Your task to perform on an android device: find which apps use the phone's location Image 0: 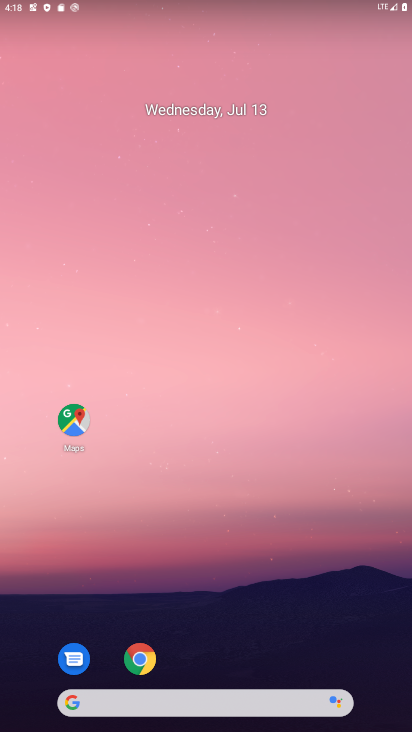
Step 0: drag from (213, 652) to (254, 85)
Your task to perform on an android device: find which apps use the phone's location Image 1: 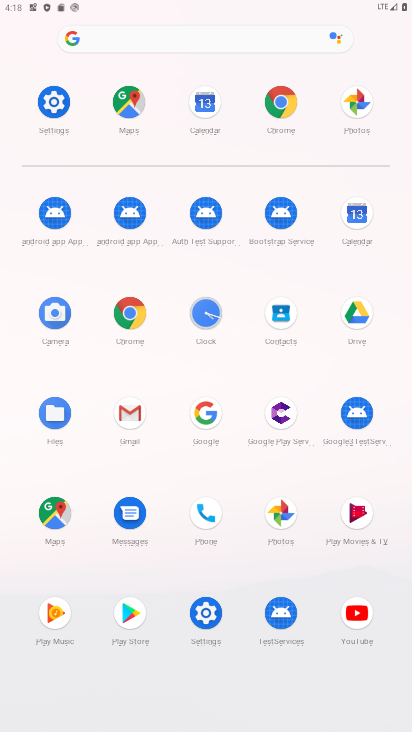
Step 1: click (51, 95)
Your task to perform on an android device: find which apps use the phone's location Image 2: 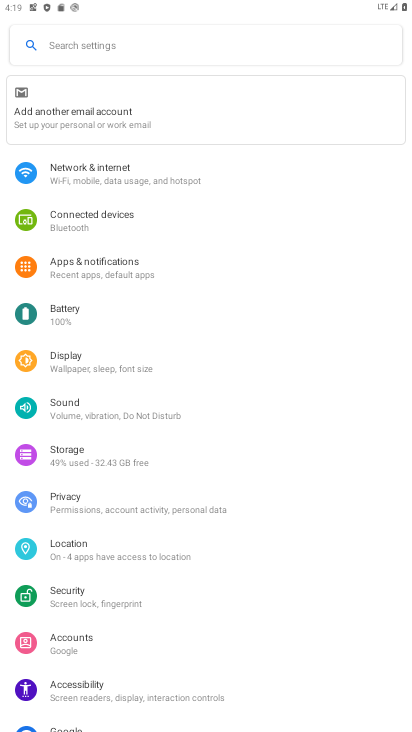
Step 2: click (94, 548)
Your task to perform on an android device: find which apps use the phone's location Image 3: 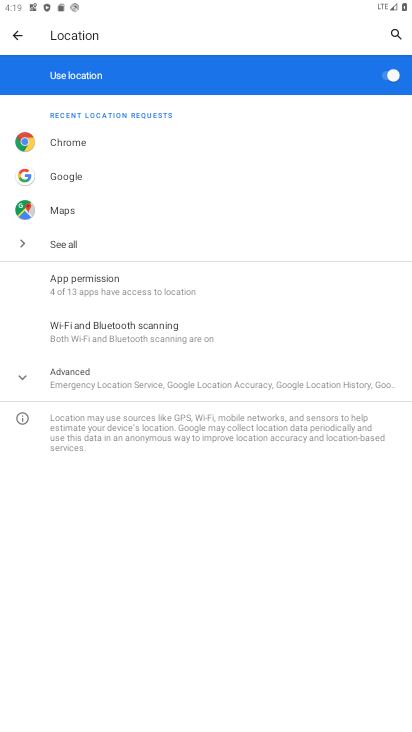
Step 3: click (74, 289)
Your task to perform on an android device: find which apps use the phone's location Image 4: 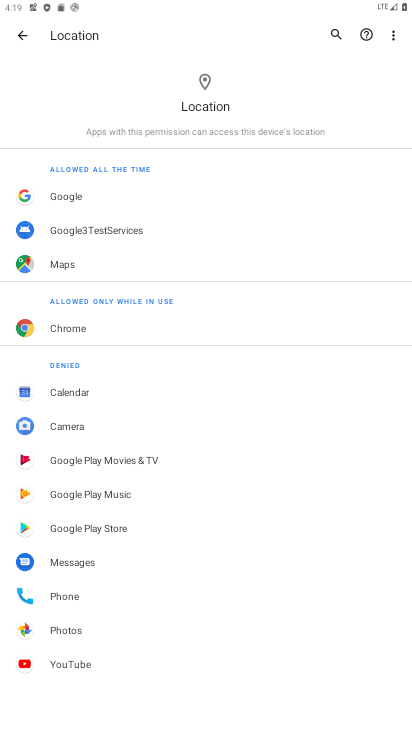
Step 4: task complete